Your task to perform on an android device: turn off smart reply in the gmail app Image 0: 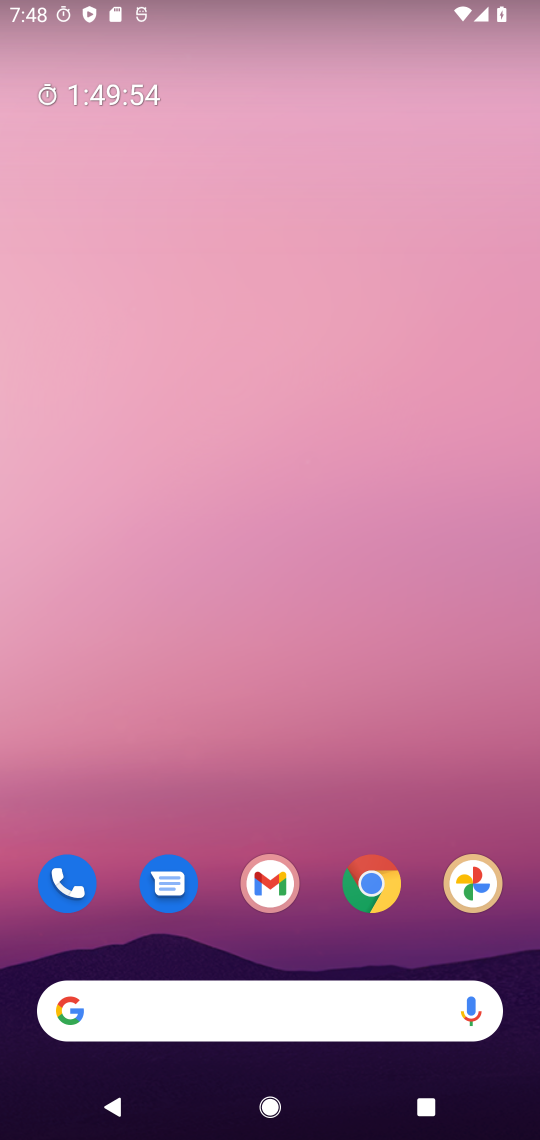
Step 0: drag from (261, 801) to (259, 648)
Your task to perform on an android device: turn off smart reply in the gmail app Image 1: 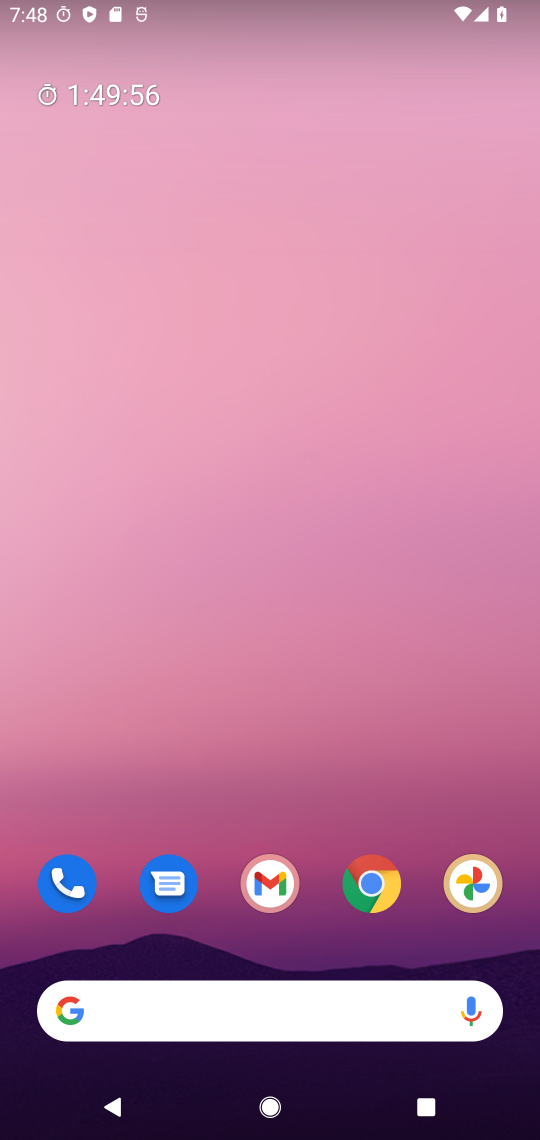
Step 1: click (275, 857)
Your task to perform on an android device: turn off smart reply in the gmail app Image 2: 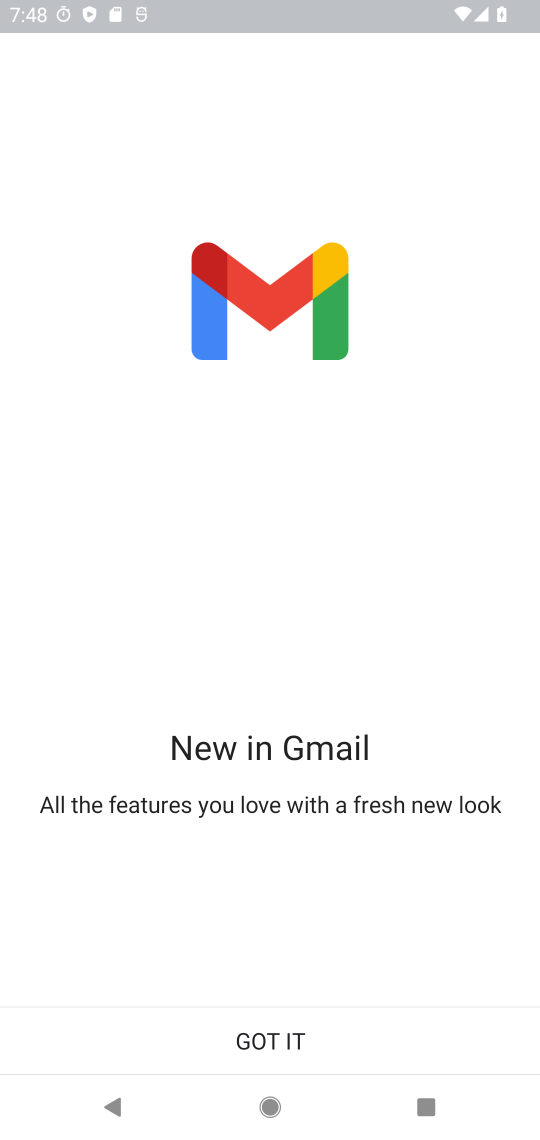
Step 2: click (325, 1044)
Your task to perform on an android device: turn off smart reply in the gmail app Image 3: 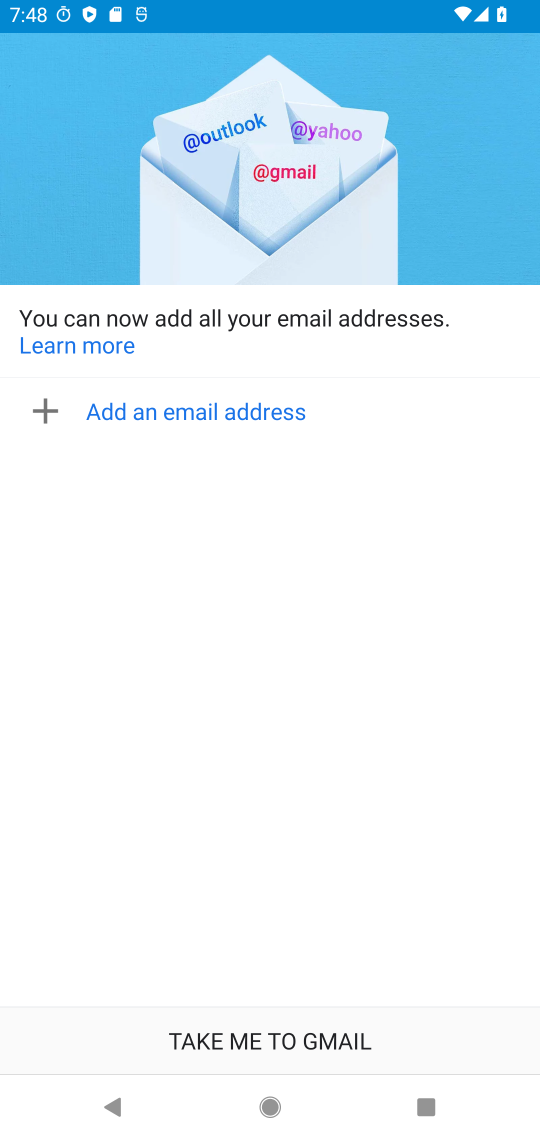
Step 3: task complete